Your task to perform on an android device: toggle priority inbox in the gmail app Image 0: 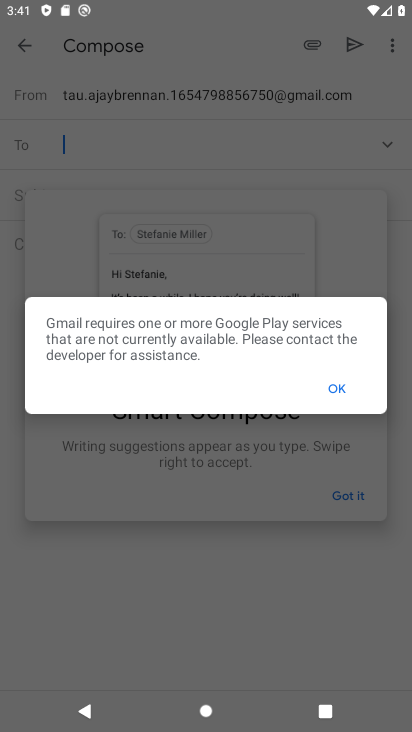
Step 0: press home button
Your task to perform on an android device: toggle priority inbox in the gmail app Image 1: 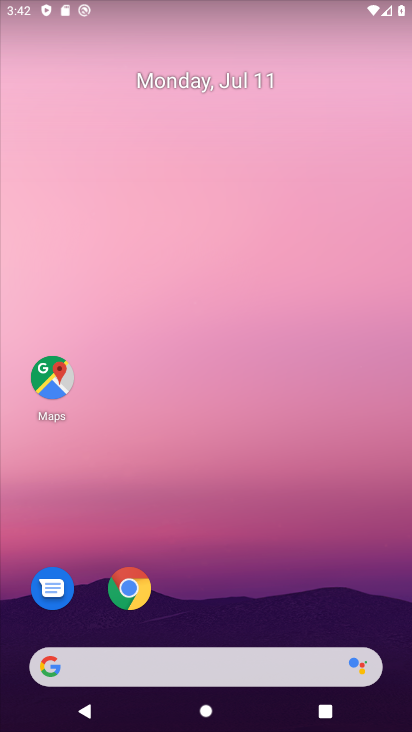
Step 1: drag from (332, 591) to (356, 104)
Your task to perform on an android device: toggle priority inbox in the gmail app Image 2: 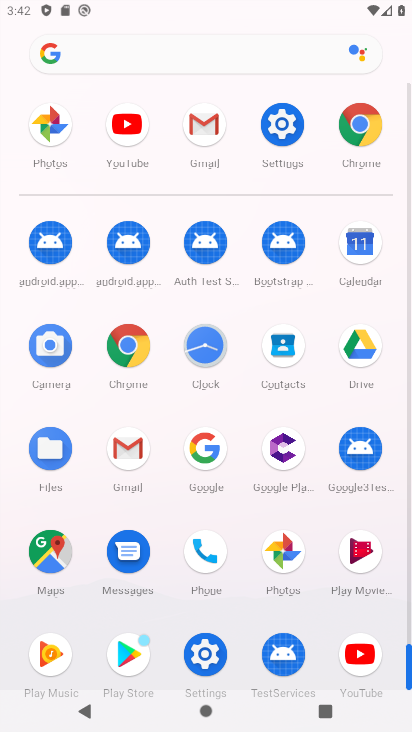
Step 2: click (139, 454)
Your task to perform on an android device: toggle priority inbox in the gmail app Image 3: 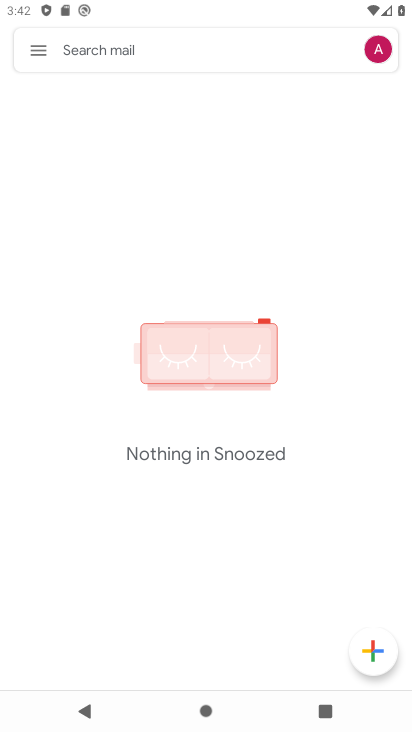
Step 3: click (38, 55)
Your task to perform on an android device: toggle priority inbox in the gmail app Image 4: 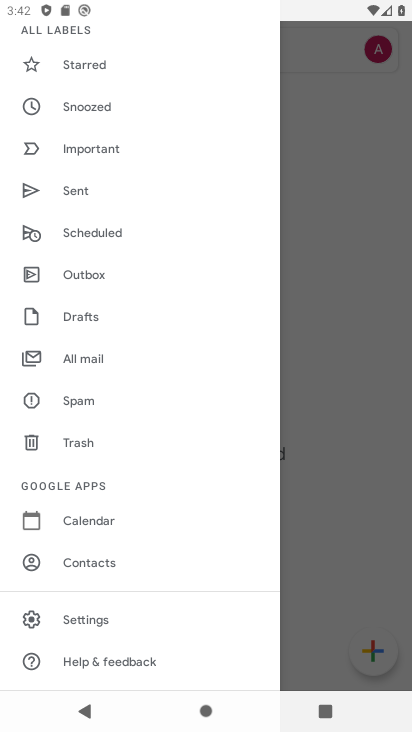
Step 4: click (158, 621)
Your task to perform on an android device: toggle priority inbox in the gmail app Image 5: 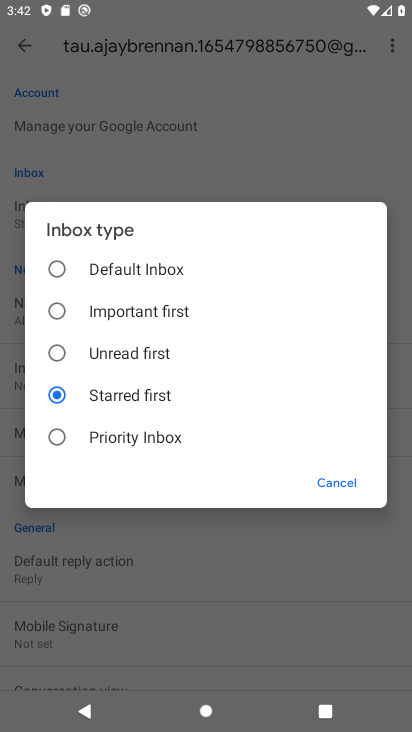
Step 5: click (159, 434)
Your task to perform on an android device: toggle priority inbox in the gmail app Image 6: 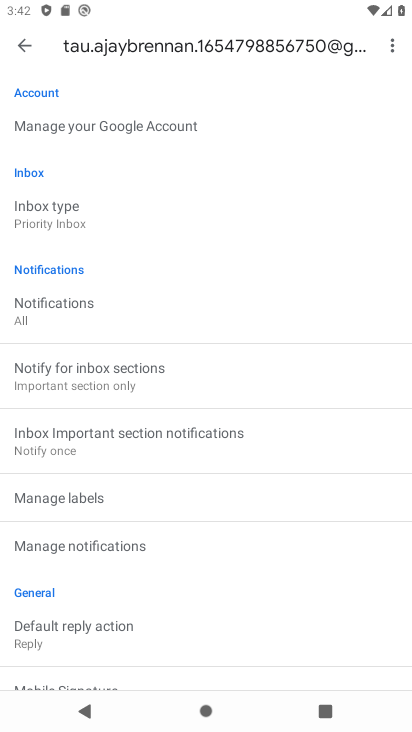
Step 6: task complete